Your task to perform on an android device: toggle notification dots Image 0: 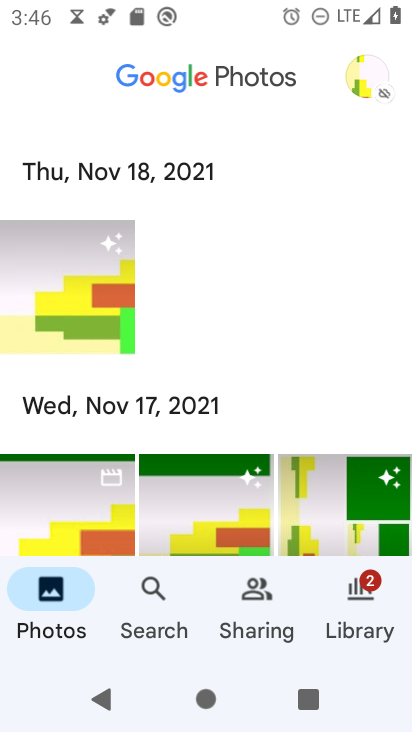
Step 0: press home button
Your task to perform on an android device: toggle notification dots Image 1: 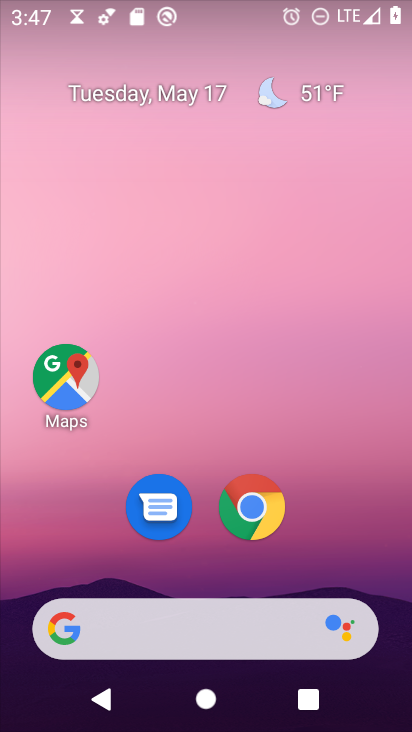
Step 1: drag from (184, 567) to (250, 1)
Your task to perform on an android device: toggle notification dots Image 2: 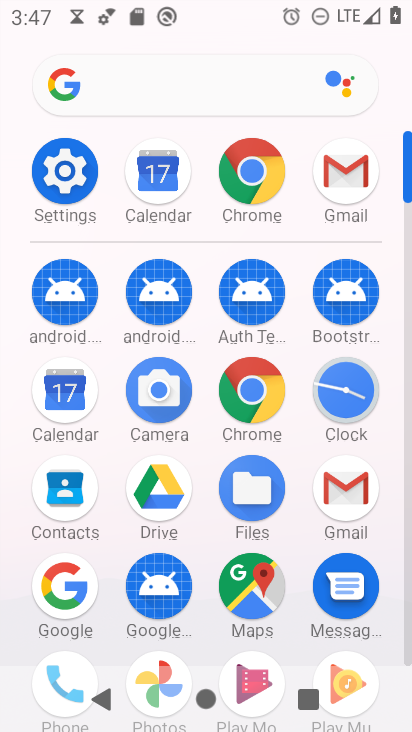
Step 2: click (64, 182)
Your task to perform on an android device: toggle notification dots Image 3: 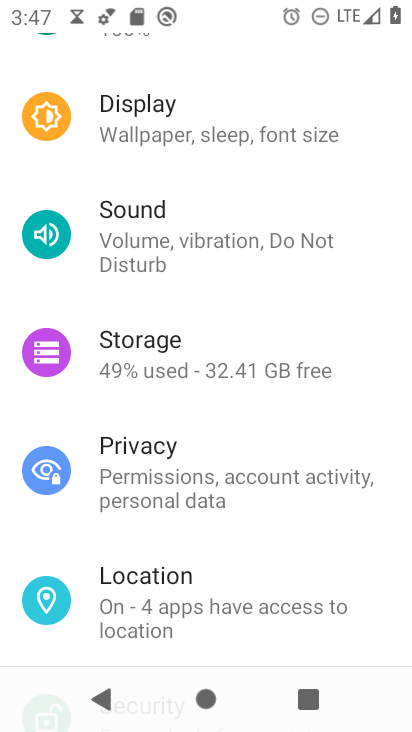
Step 3: drag from (218, 338) to (224, 508)
Your task to perform on an android device: toggle notification dots Image 4: 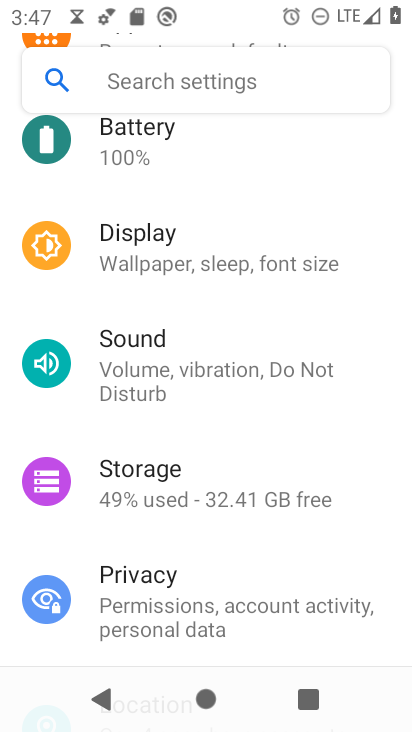
Step 4: drag from (219, 355) to (198, 533)
Your task to perform on an android device: toggle notification dots Image 5: 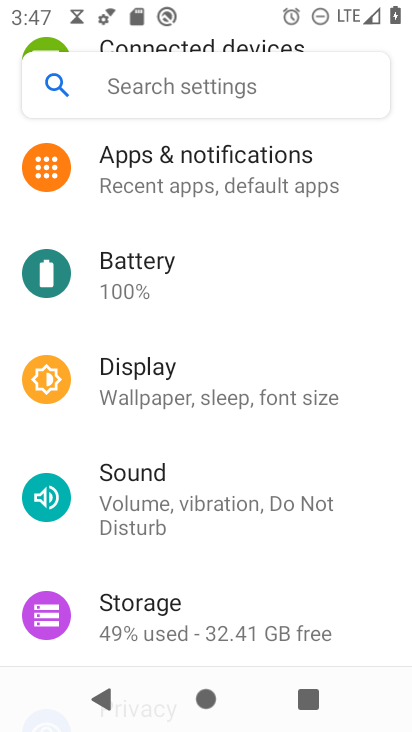
Step 5: drag from (198, 241) to (196, 511)
Your task to perform on an android device: toggle notification dots Image 6: 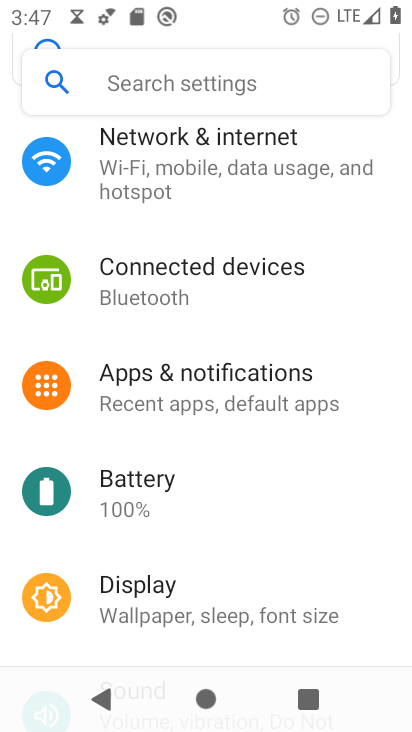
Step 6: click (233, 388)
Your task to perform on an android device: toggle notification dots Image 7: 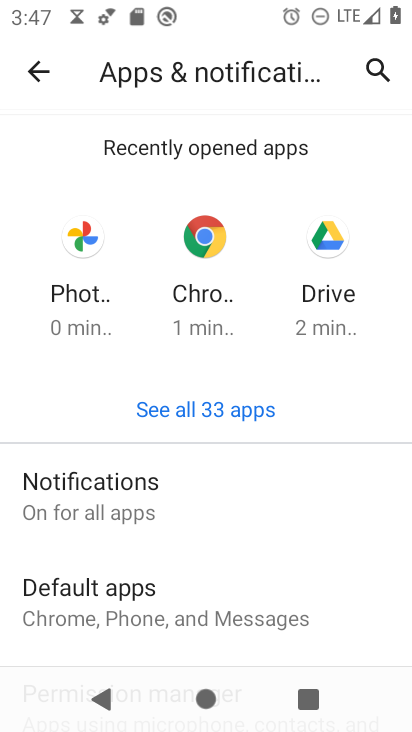
Step 7: click (152, 490)
Your task to perform on an android device: toggle notification dots Image 8: 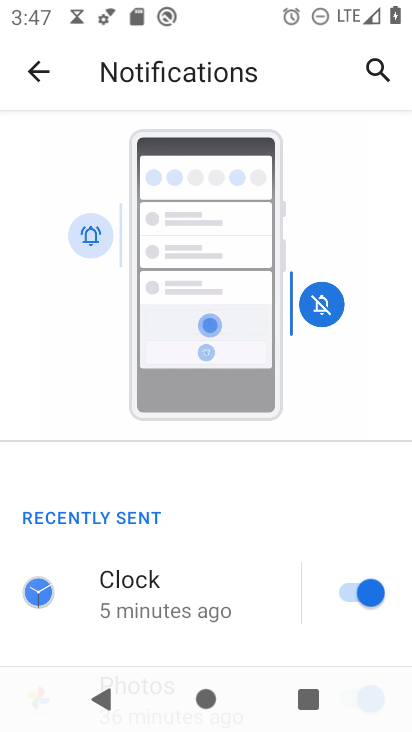
Step 8: drag from (253, 582) to (254, 270)
Your task to perform on an android device: toggle notification dots Image 9: 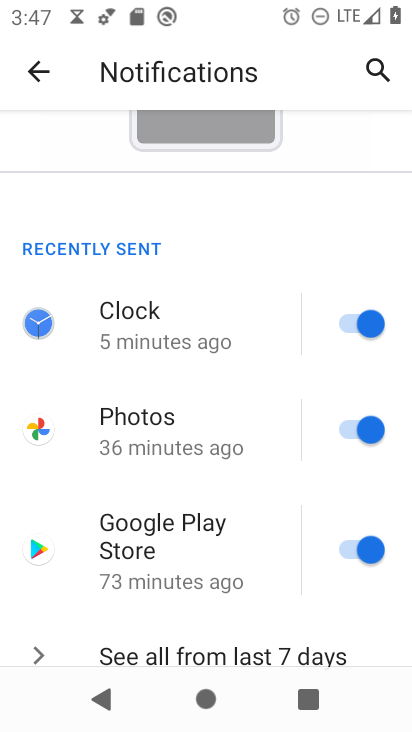
Step 9: drag from (248, 581) to (247, 222)
Your task to perform on an android device: toggle notification dots Image 10: 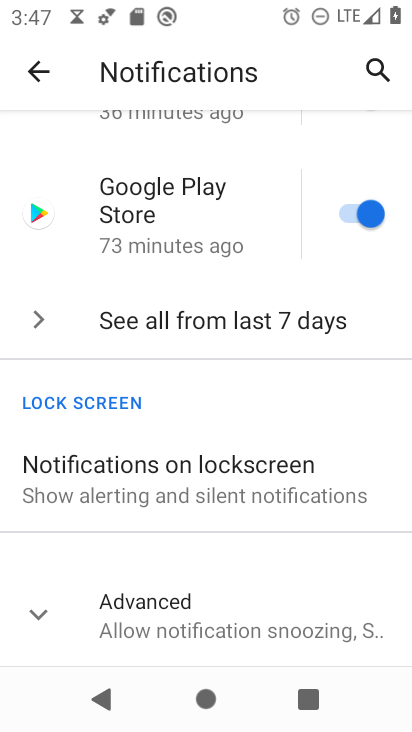
Step 10: click (246, 608)
Your task to perform on an android device: toggle notification dots Image 11: 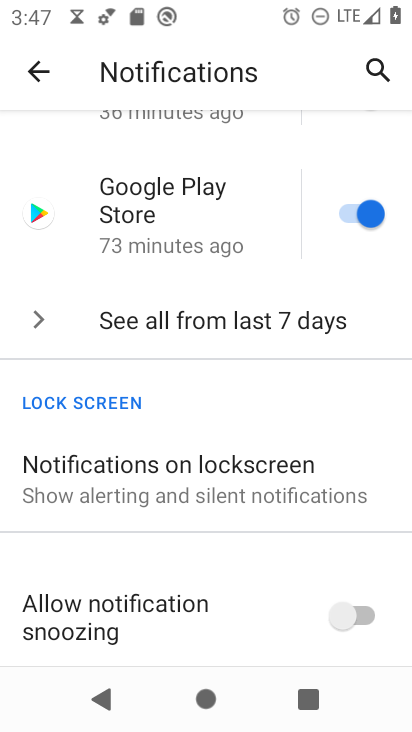
Step 11: drag from (238, 612) to (248, 252)
Your task to perform on an android device: toggle notification dots Image 12: 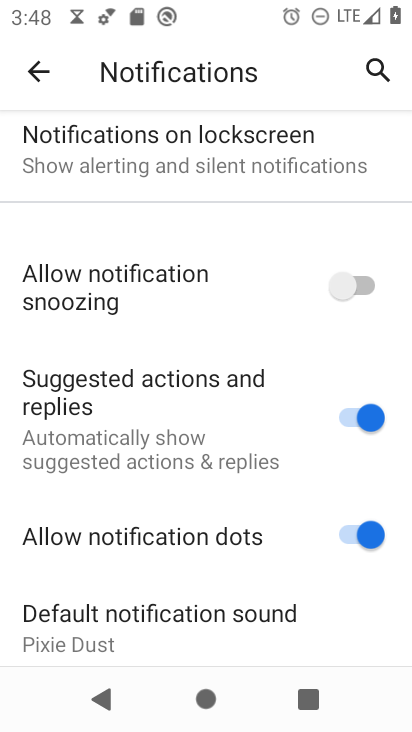
Step 12: click (349, 533)
Your task to perform on an android device: toggle notification dots Image 13: 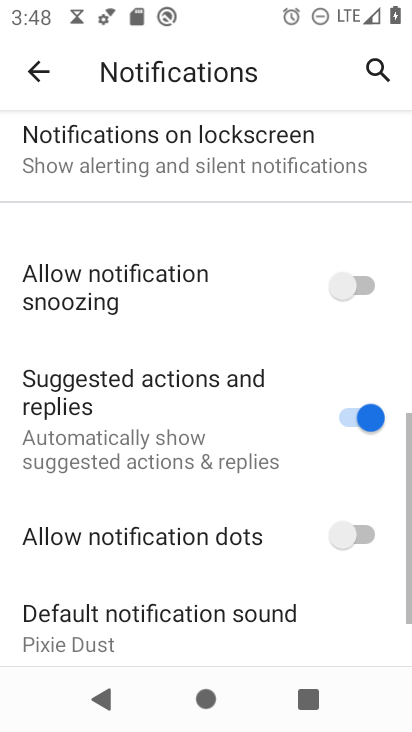
Step 13: task complete